Your task to perform on an android device: all mails in gmail Image 0: 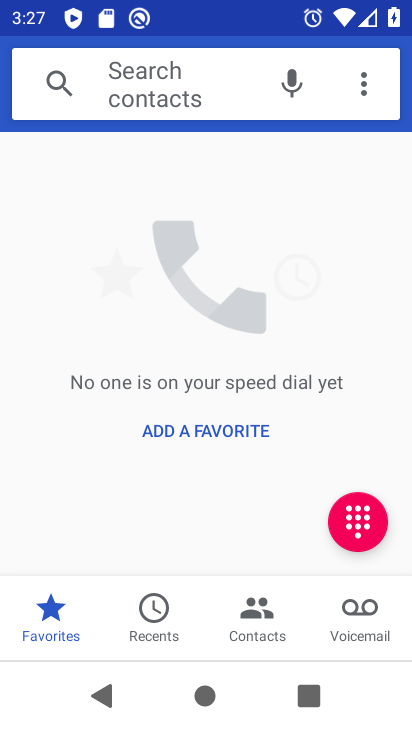
Step 0: press home button
Your task to perform on an android device: all mails in gmail Image 1: 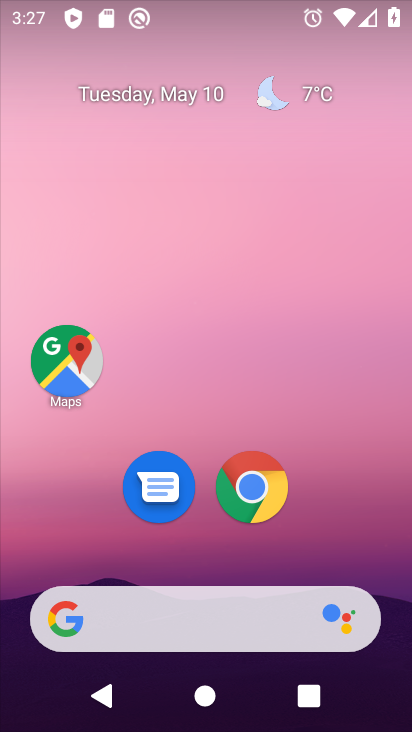
Step 1: drag from (374, 523) to (267, 165)
Your task to perform on an android device: all mails in gmail Image 2: 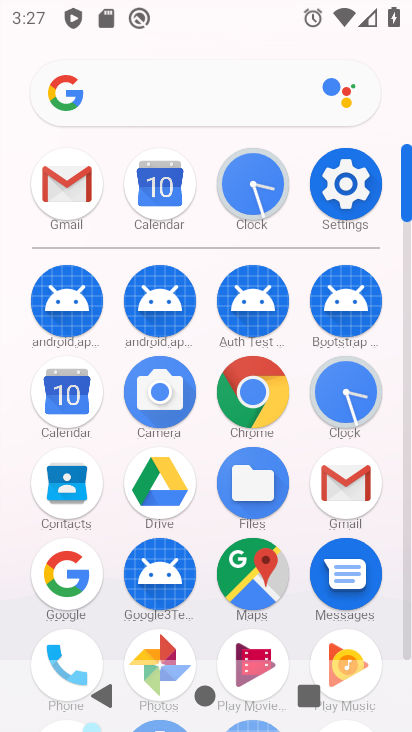
Step 2: click (80, 194)
Your task to perform on an android device: all mails in gmail Image 3: 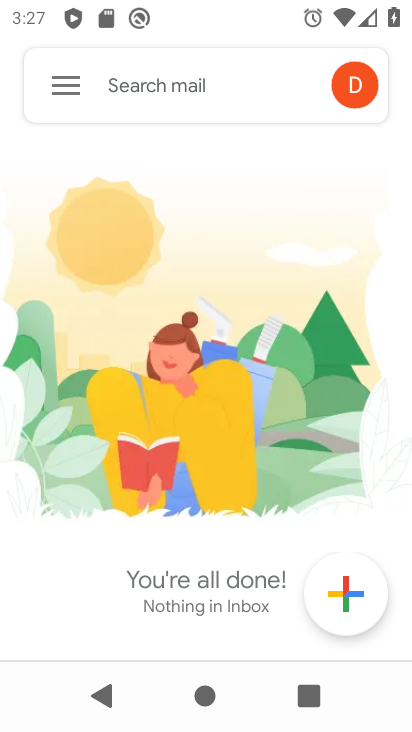
Step 3: click (70, 95)
Your task to perform on an android device: all mails in gmail Image 4: 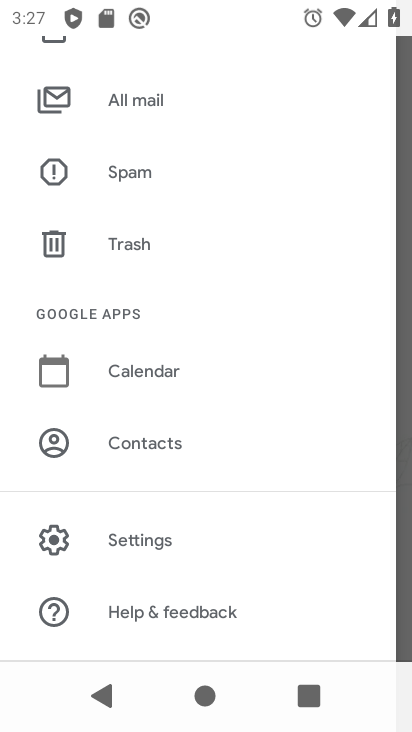
Step 4: click (153, 105)
Your task to perform on an android device: all mails in gmail Image 5: 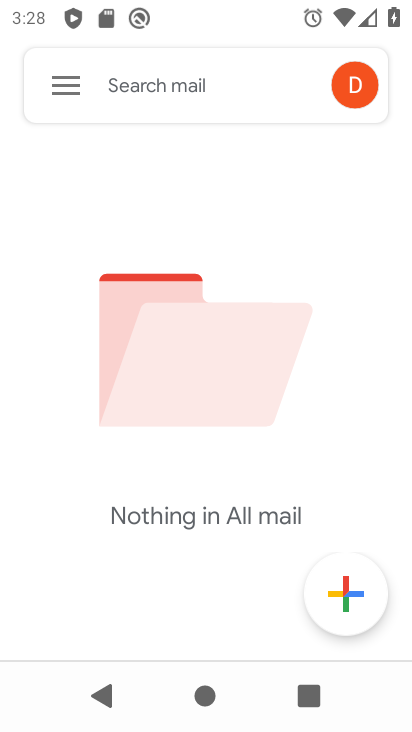
Step 5: task complete